Your task to perform on an android device: find snoozed emails in the gmail app Image 0: 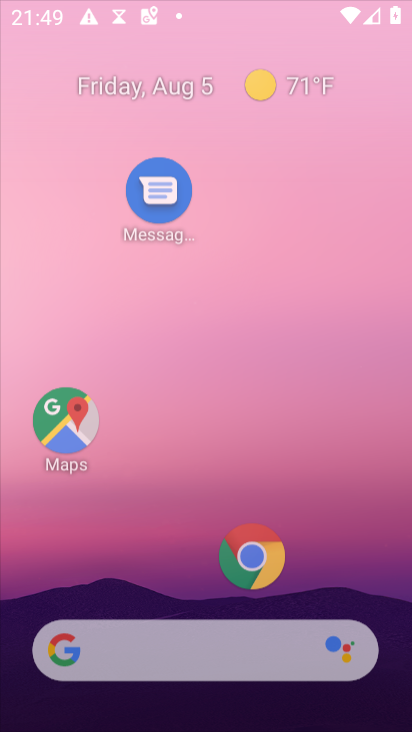
Step 0: press home button
Your task to perform on an android device: find snoozed emails in the gmail app Image 1: 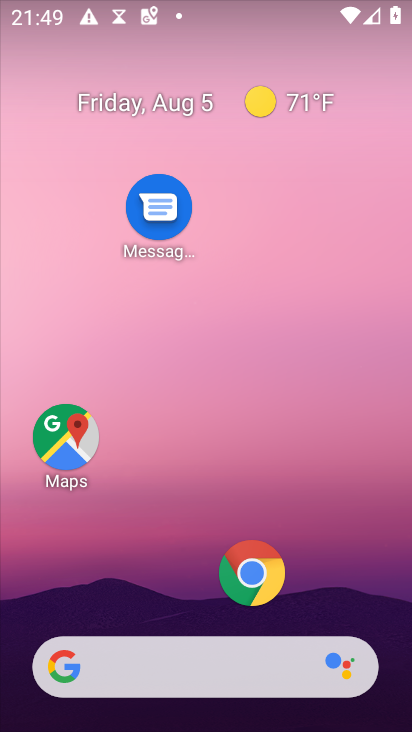
Step 1: drag from (193, 617) to (228, 88)
Your task to perform on an android device: find snoozed emails in the gmail app Image 2: 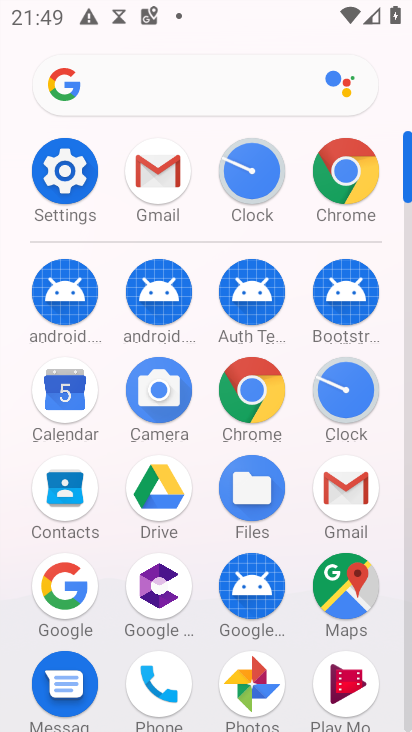
Step 2: click (344, 478)
Your task to perform on an android device: find snoozed emails in the gmail app Image 3: 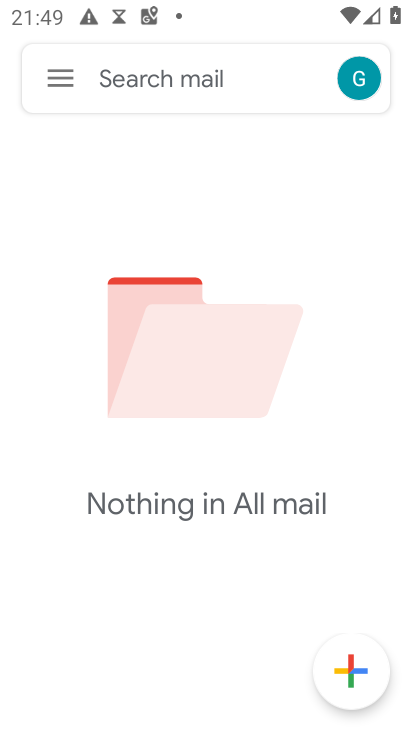
Step 3: click (58, 78)
Your task to perform on an android device: find snoozed emails in the gmail app Image 4: 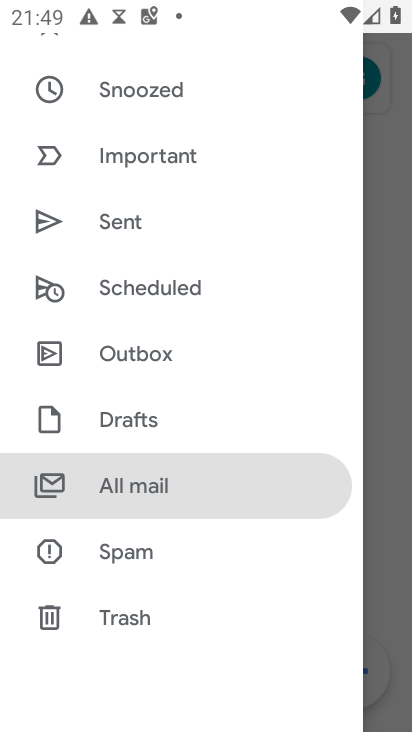
Step 4: click (123, 87)
Your task to perform on an android device: find snoozed emails in the gmail app Image 5: 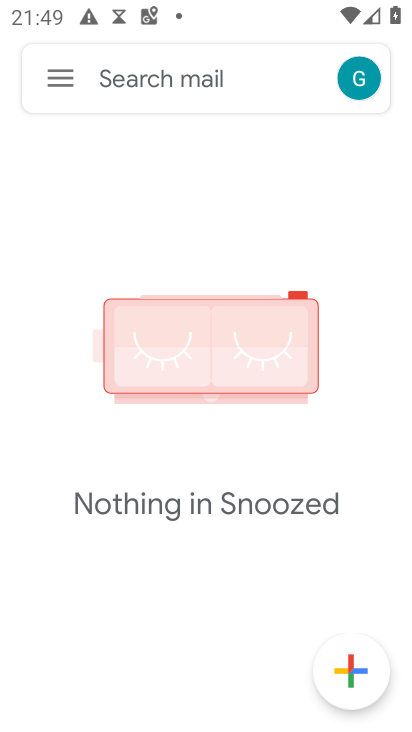
Step 5: task complete